Your task to perform on an android device: Open privacy settings Image 0: 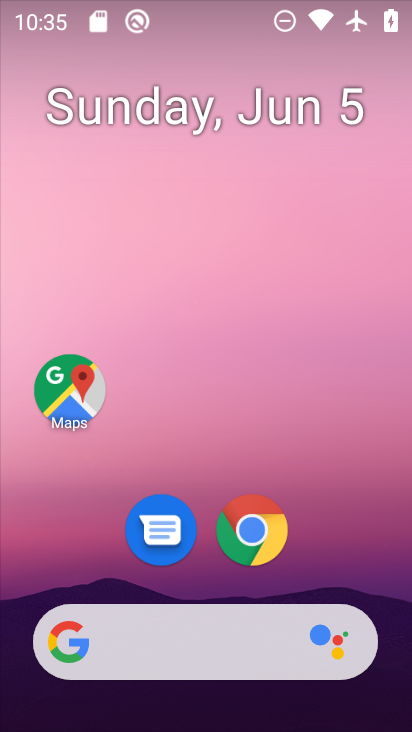
Step 0: drag from (403, 644) to (362, 125)
Your task to perform on an android device: Open privacy settings Image 1: 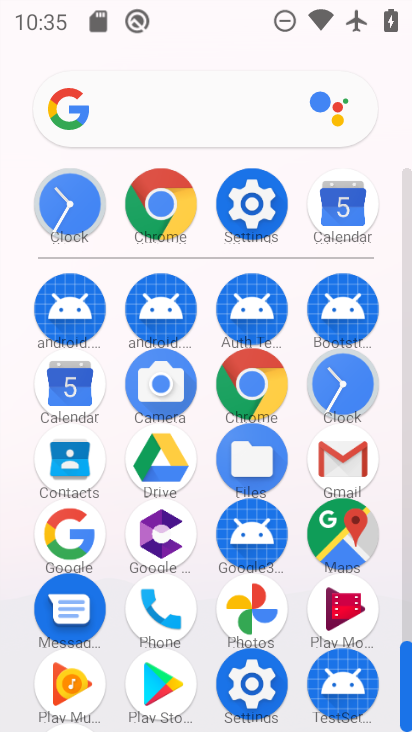
Step 1: click (254, 683)
Your task to perform on an android device: Open privacy settings Image 2: 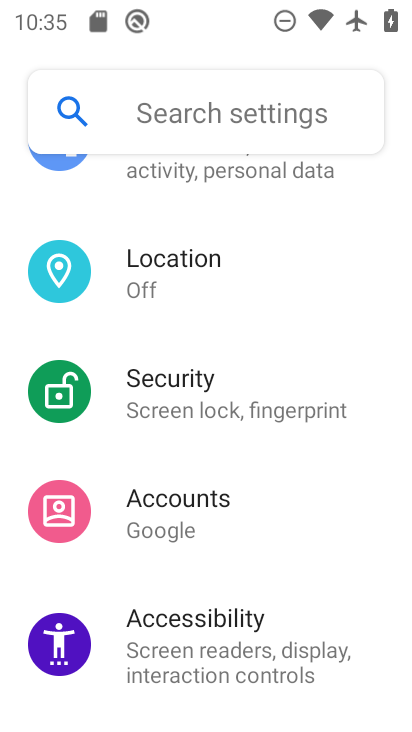
Step 2: drag from (371, 291) to (356, 580)
Your task to perform on an android device: Open privacy settings Image 3: 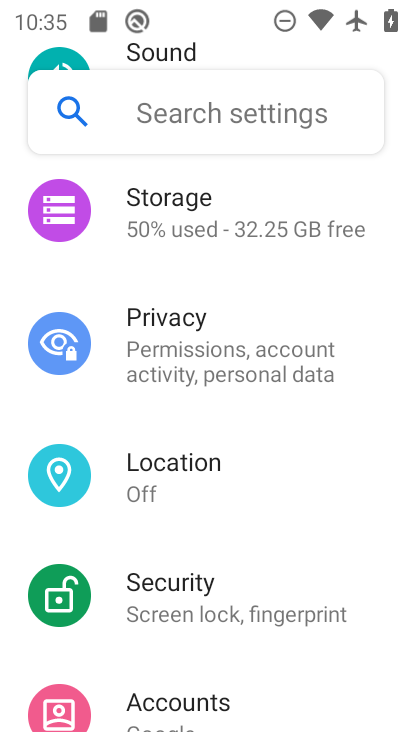
Step 3: click (162, 334)
Your task to perform on an android device: Open privacy settings Image 4: 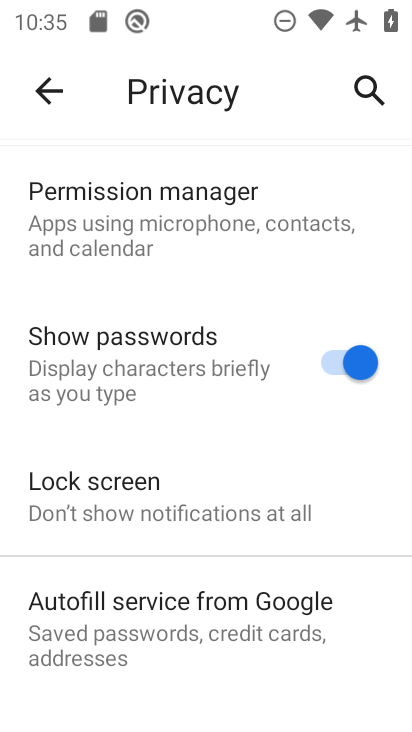
Step 4: drag from (323, 599) to (274, 203)
Your task to perform on an android device: Open privacy settings Image 5: 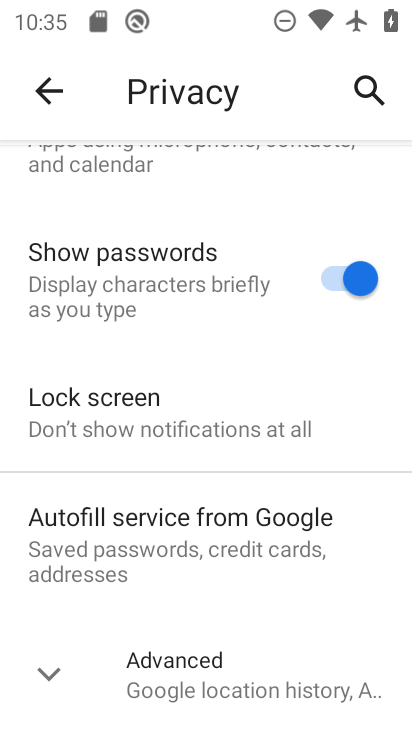
Step 5: click (51, 672)
Your task to perform on an android device: Open privacy settings Image 6: 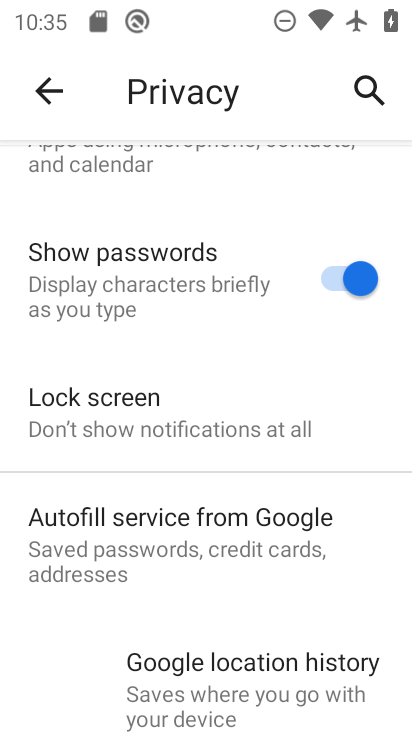
Step 6: task complete